Your task to perform on an android device: Open calendar and show me the third week of next month Image 0: 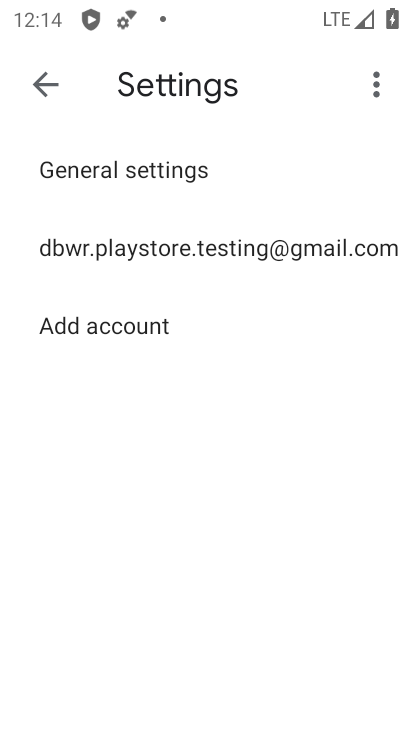
Step 0: press home button
Your task to perform on an android device: Open calendar and show me the third week of next month Image 1: 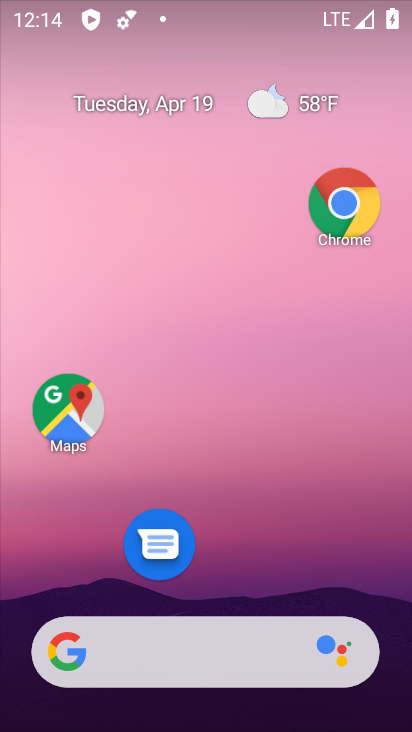
Step 1: drag from (251, 587) to (305, 60)
Your task to perform on an android device: Open calendar and show me the third week of next month Image 2: 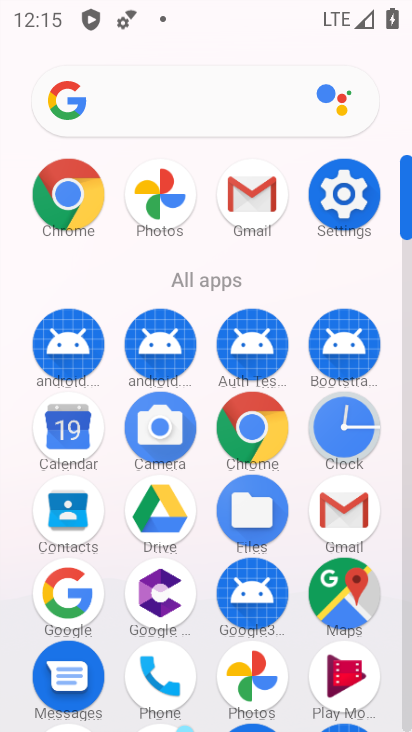
Step 2: click (66, 437)
Your task to perform on an android device: Open calendar and show me the third week of next month Image 3: 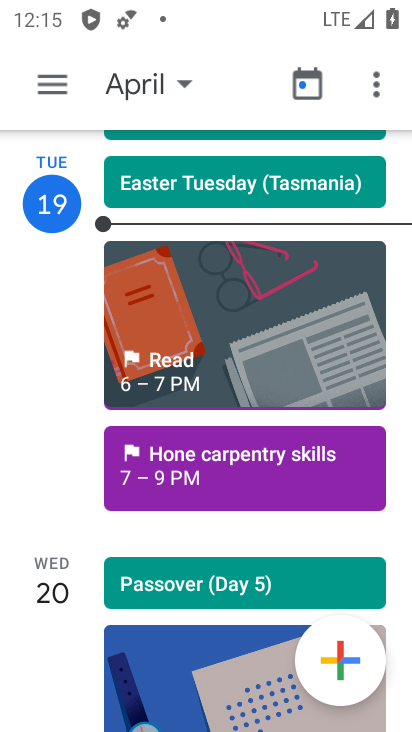
Step 3: click (152, 94)
Your task to perform on an android device: Open calendar and show me the third week of next month Image 4: 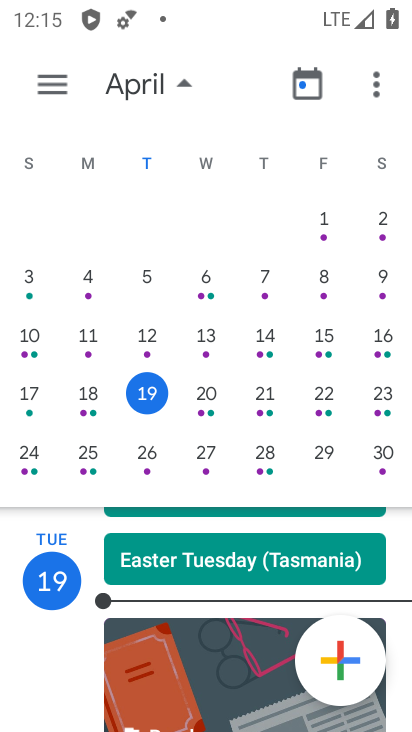
Step 4: drag from (331, 325) to (0, 292)
Your task to perform on an android device: Open calendar and show me the third week of next month Image 5: 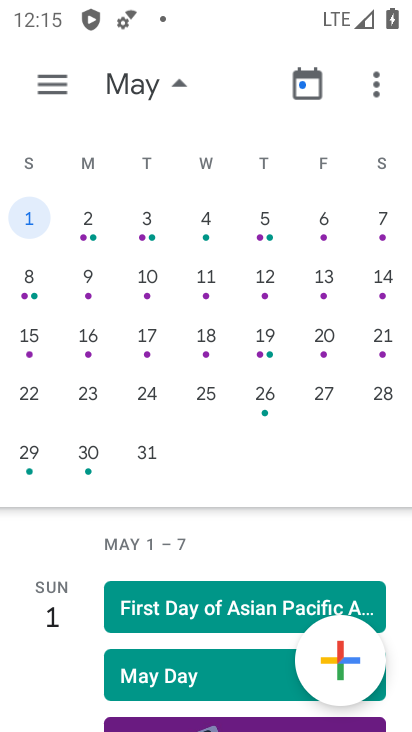
Step 5: click (27, 344)
Your task to perform on an android device: Open calendar and show me the third week of next month Image 6: 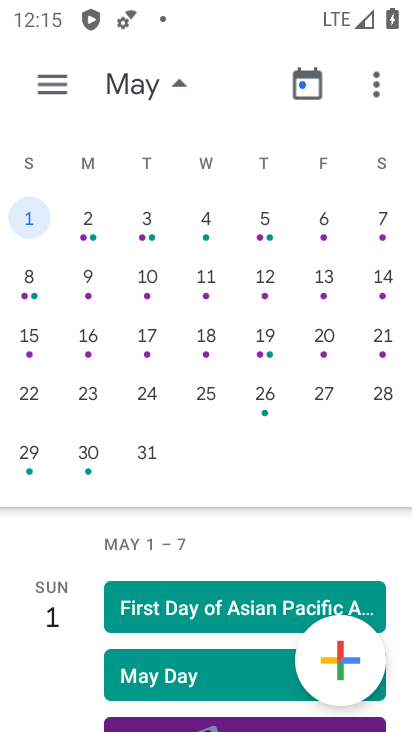
Step 6: click (35, 340)
Your task to perform on an android device: Open calendar and show me the third week of next month Image 7: 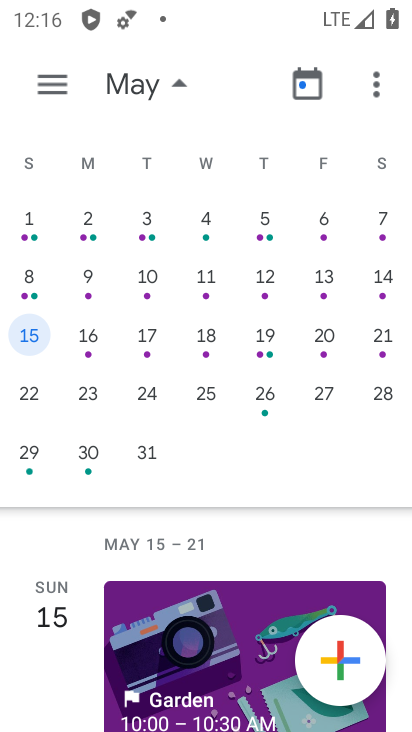
Step 7: task complete